Your task to perform on an android device: Open the Play Movies app and select the watchlist tab. Image 0: 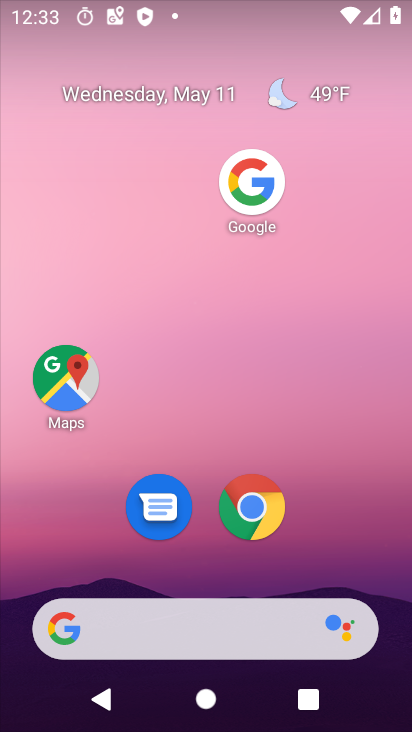
Step 0: drag from (210, 564) to (225, 93)
Your task to perform on an android device: Open the Play Movies app and select the watchlist tab. Image 1: 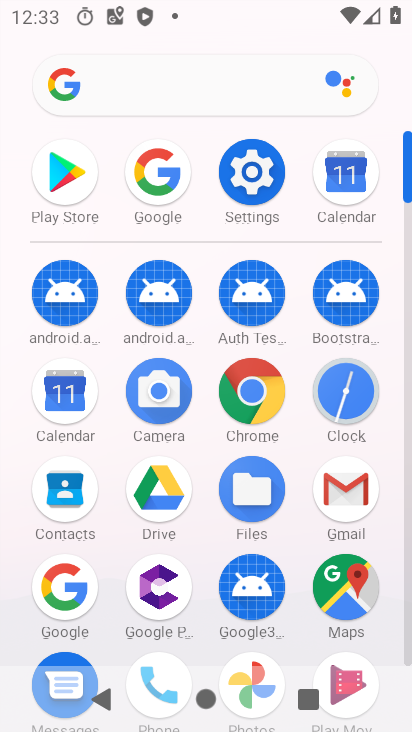
Step 1: drag from (214, 558) to (230, 274)
Your task to perform on an android device: Open the Play Movies app and select the watchlist tab. Image 2: 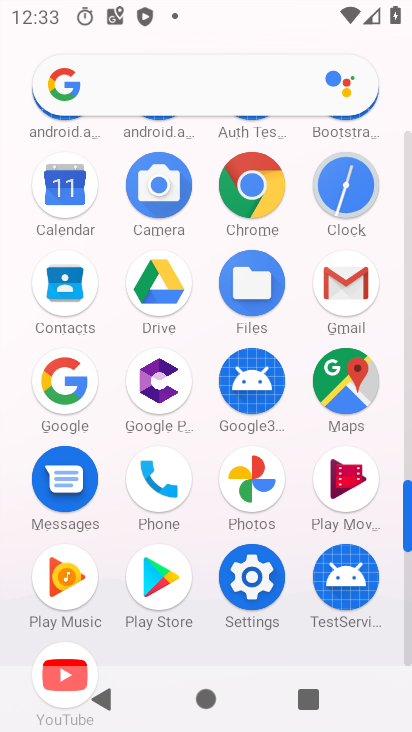
Step 2: click (353, 478)
Your task to perform on an android device: Open the Play Movies app and select the watchlist tab. Image 3: 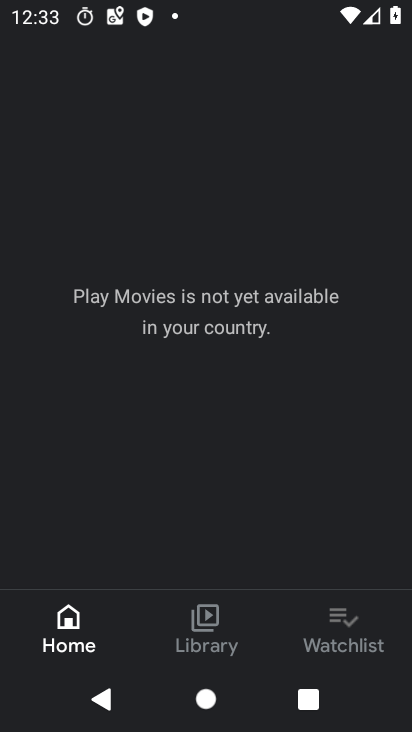
Step 3: click (346, 636)
Your task to perform on an android device: Open the Play Movies app and select the watchlist tab. Image 4: 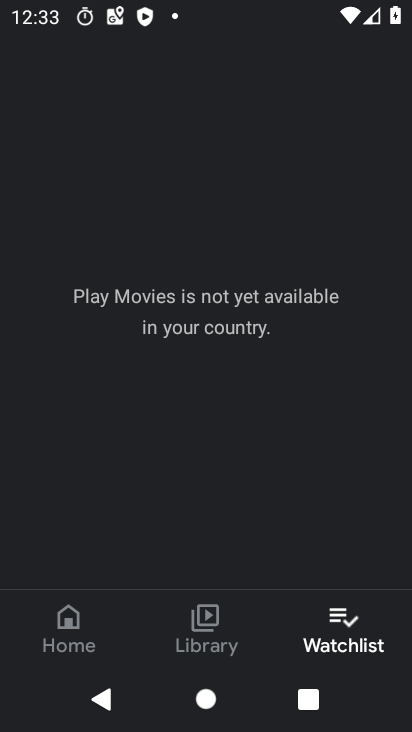
Step 4: task complete